Your task to perform on an android device: Go to Maps Image 0: 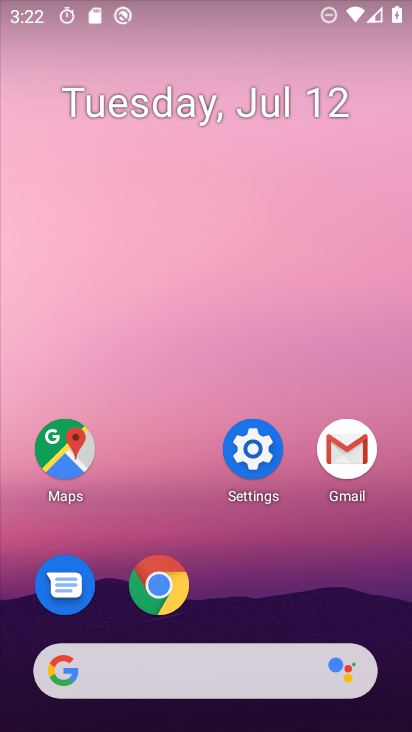
Step 0: click (43, 452)
Your task to perform on an android device: Go to Maps Image 1: 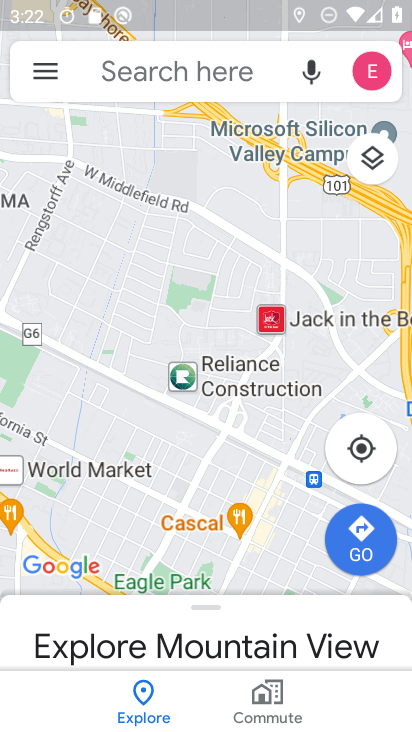
Step 1: task complete